Your task to perform on an android device: Toggle the flashlight Image 0: 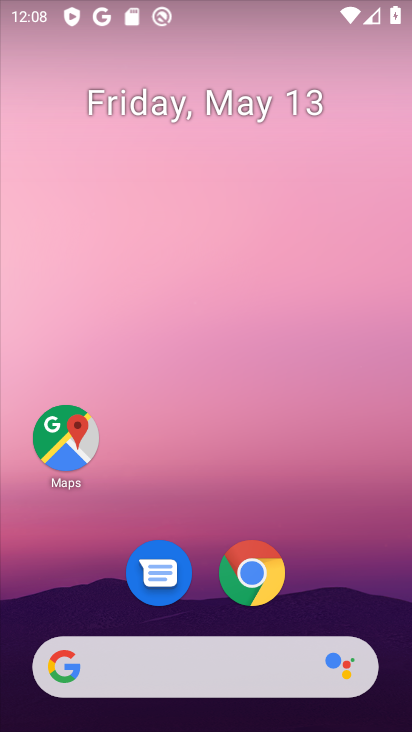
Step 0: drag from (219, 695) to (243, 271)
Your task to perform on an android device: Toggle the flashlight Image 1: 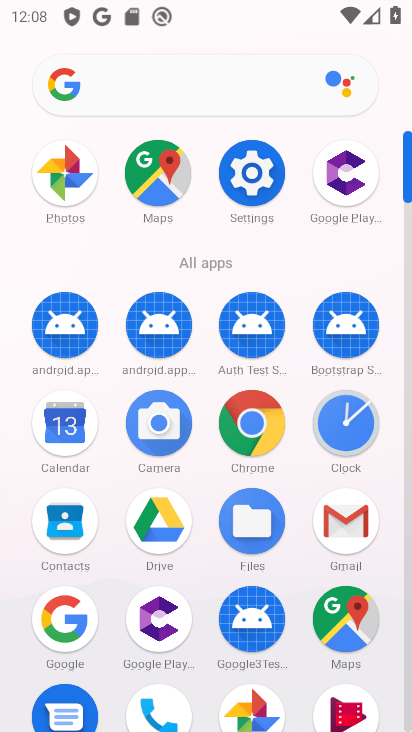
Step 1: task complete